Your task to perform on an android device: check data usage Image 0: 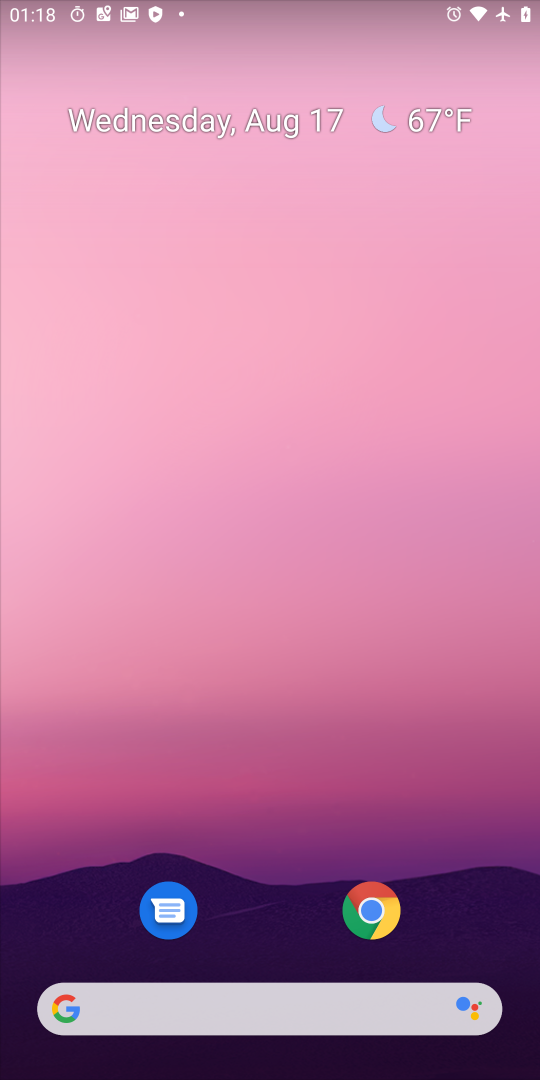
Step 0: drag from (274, 874) to (283, 74)
Your task to perform on an android device: check data usage Image 1: 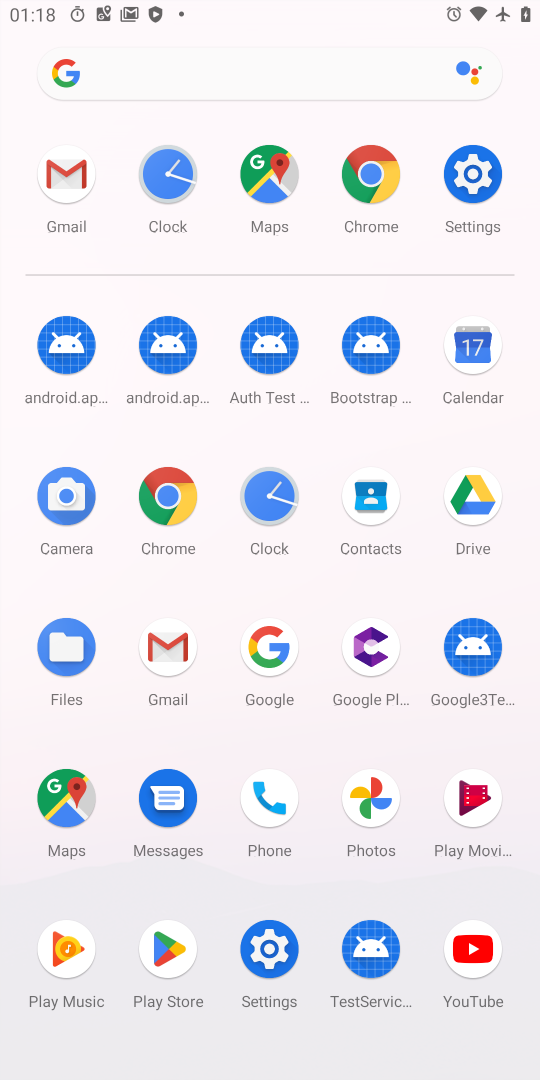
Step 1: click (489, 167)
Your task to perform on an android device: check data usage Image 2: 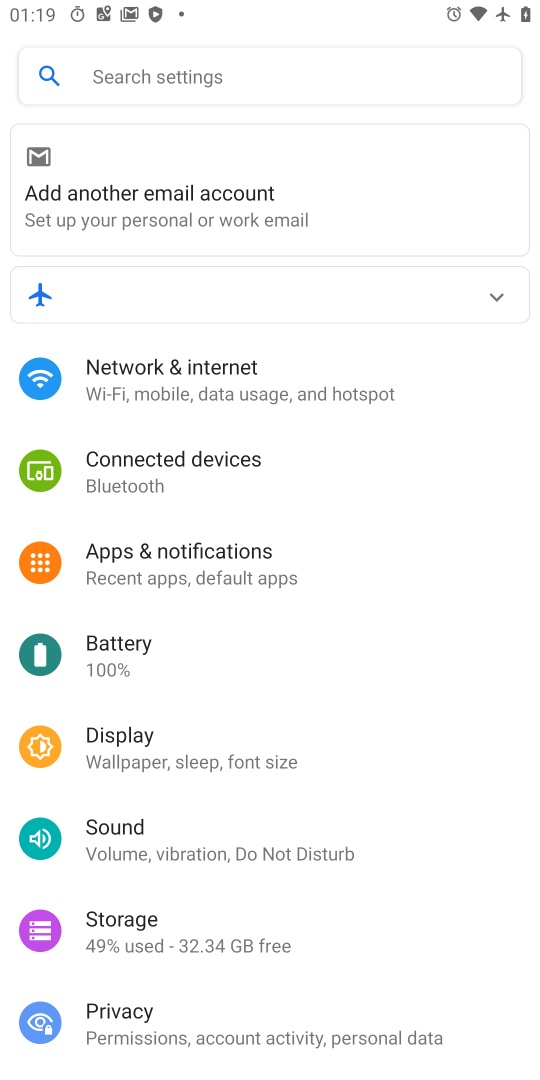
Step 2: click (178, 365)
Your task to perform on an android device: check data usage Image 3: 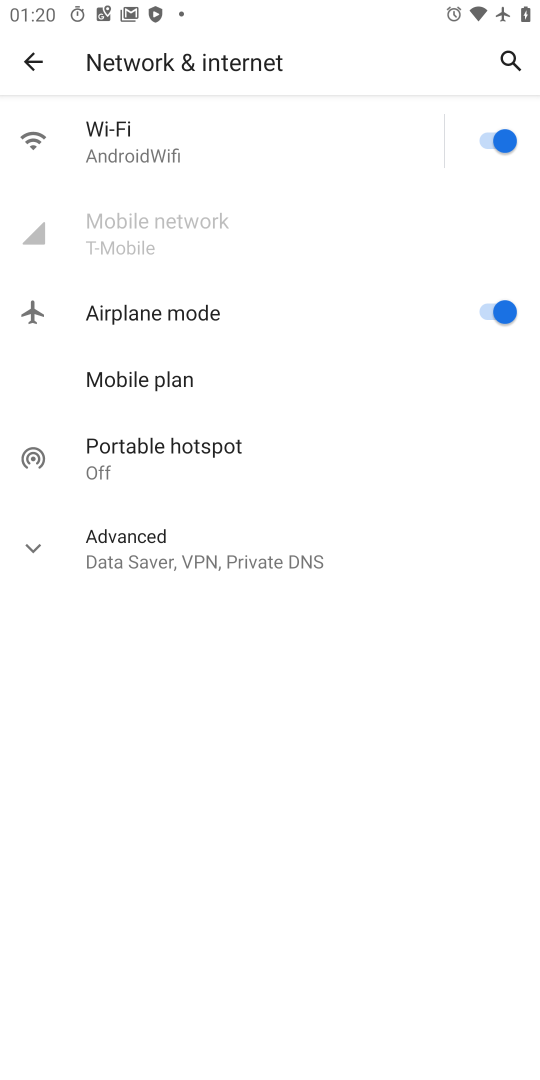
Step 3: click (134, 216)
Your task to perform on an android device: check data usage Image 4: 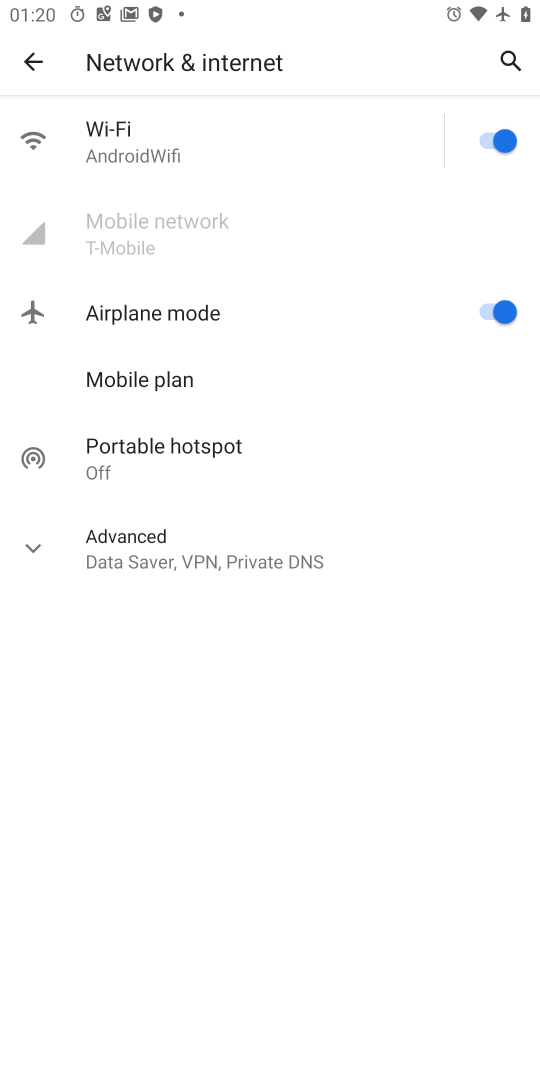
Step 4: click (210, 159)
Your task to perform on an android device: check data usage Image 5: 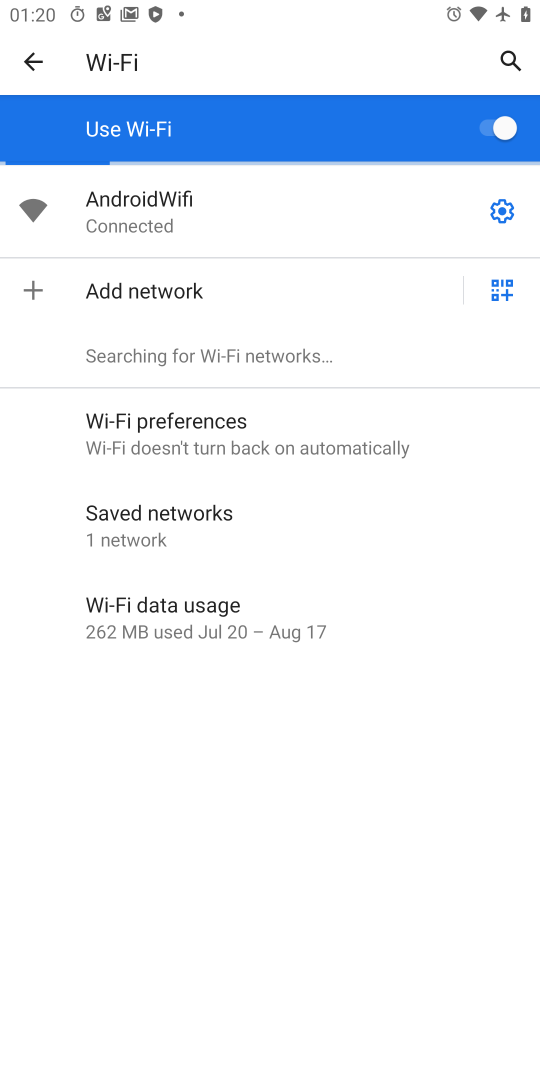
Step 5: click (183, 613)
Your task to perform on an android device: check data usage Image 6: 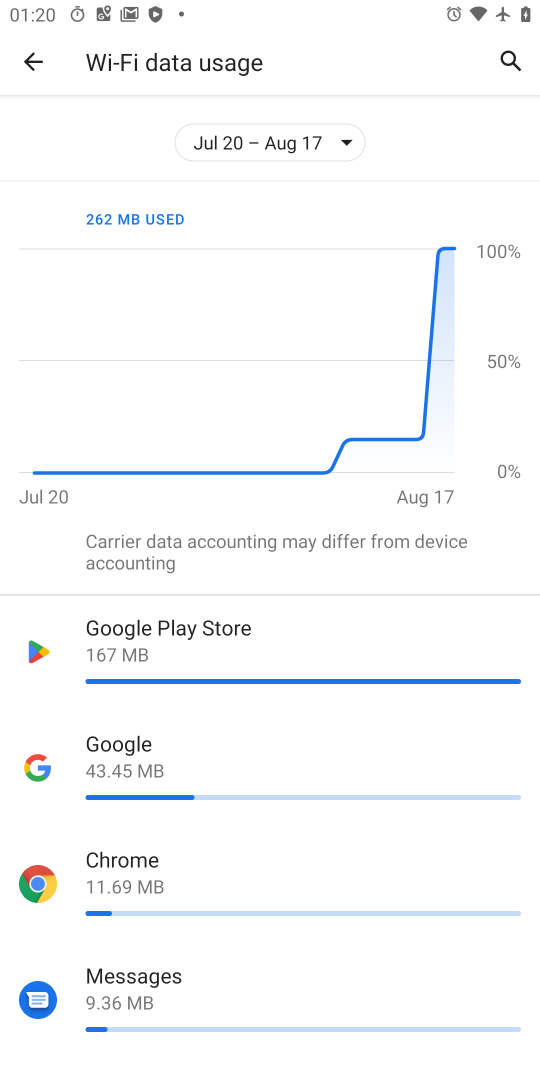
Step 6: task complete